Your task to perform on an android device: What's the weather going to be this weekend? Image 0: 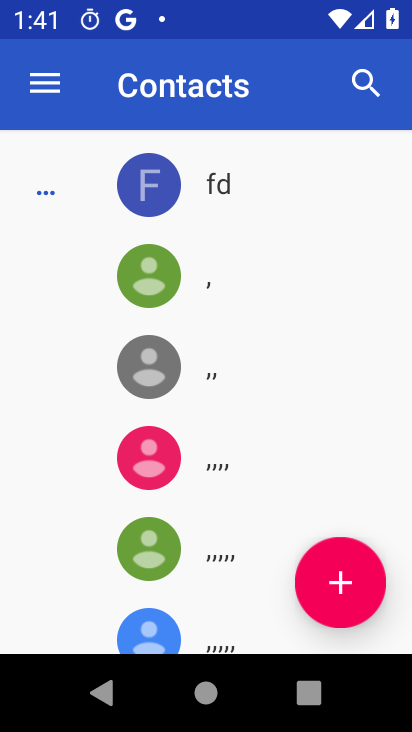
Step 0: press home button
Your task to perform on an android device: What's the weather going to be this weekend? Image 1: 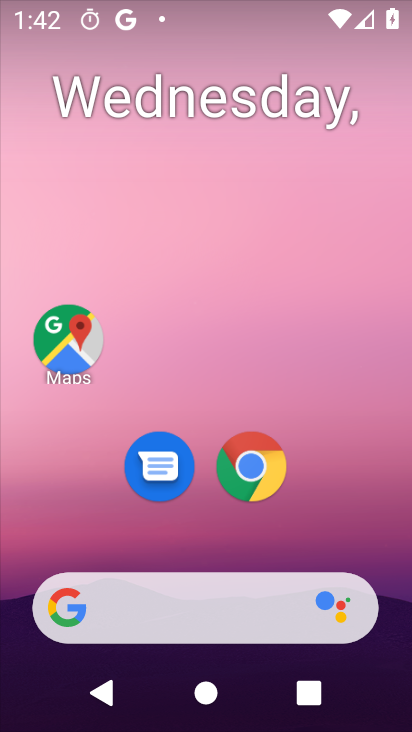
Step 1: click (153, 605)
Your task to perform on an android device: What's the weather going to be this weekend? Image 2: 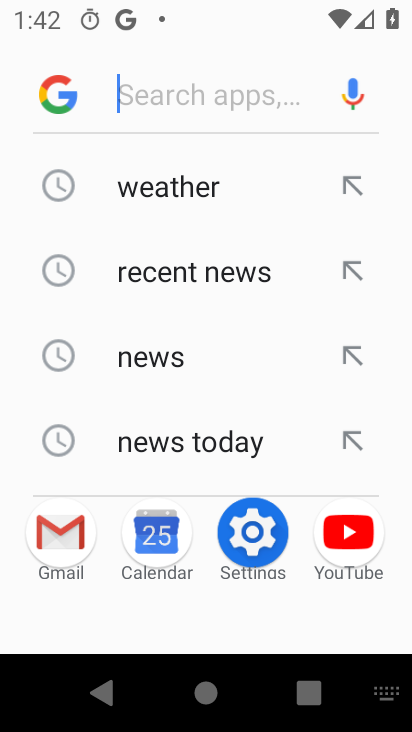
Step 2: click (198, 186)
Your task to perform on an android device: What's the weather going to be this weekend? Image 3: 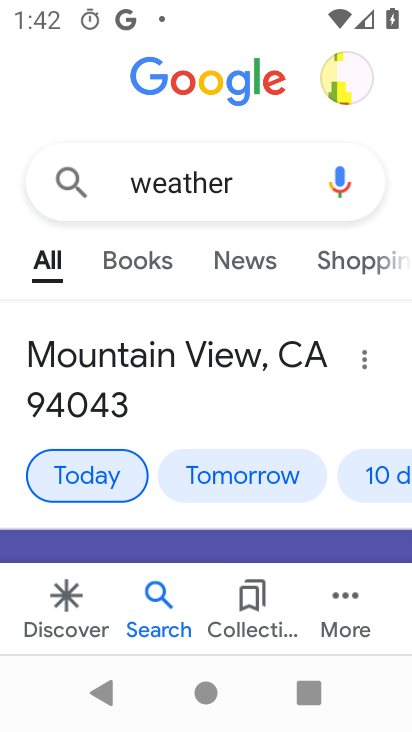
Step 3: click (365, 469)
Your task to perform on an android device: What's the weather going to be this weekend? Image 4: 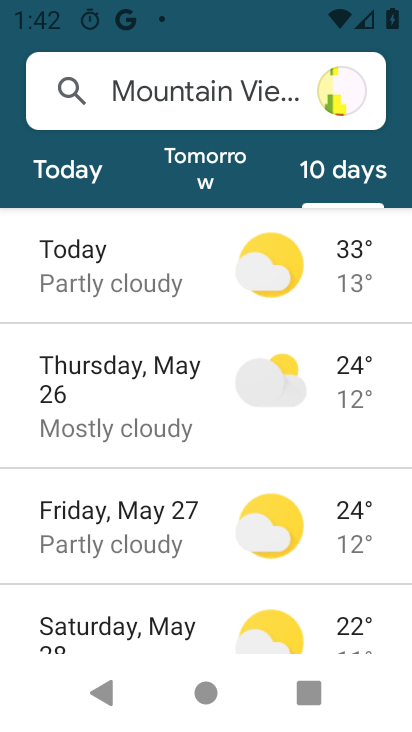
Step 4: task complete